Your task to perform on an android device: Go to Yahoo.com Image 0: 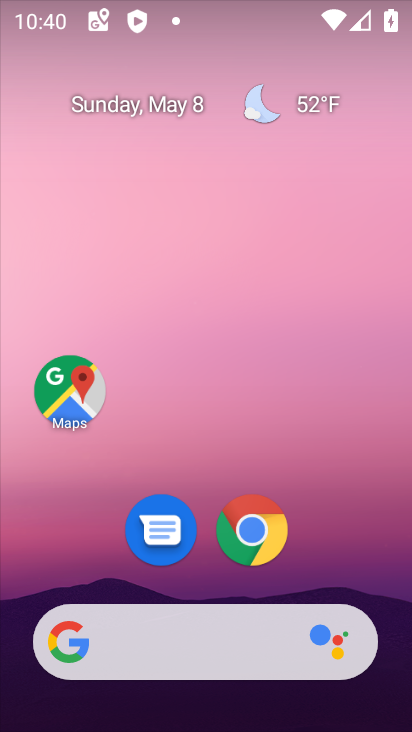
Step 0: drag from (366, 549) to (318, 45)
Your task to perform on an android device: Go to Yahoo.com Image 1: 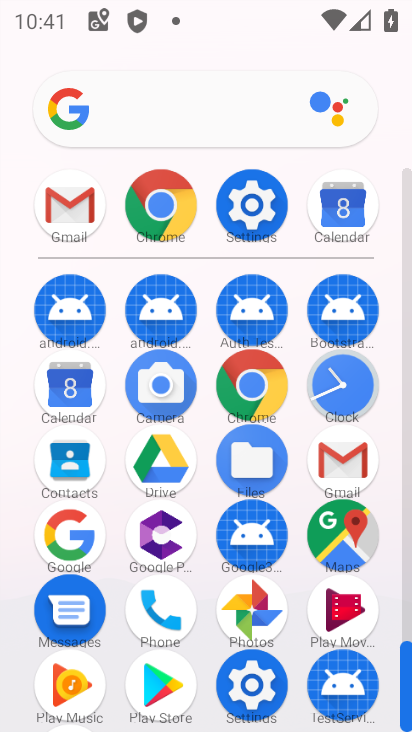
Step 1: click (267, 407)
Your task to perform on an android device: Go to Yahoo.com Image 2: 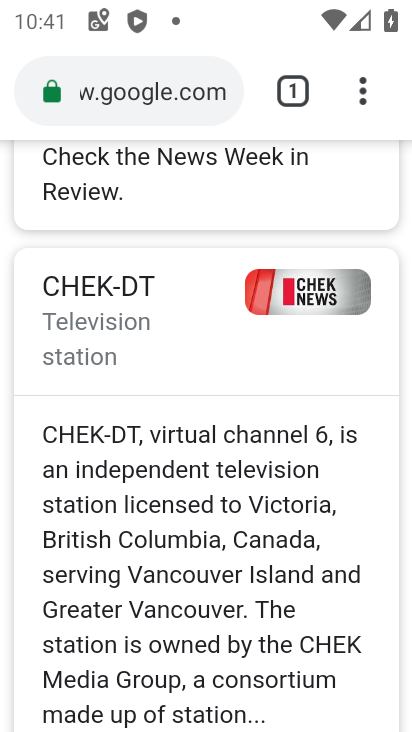
Step 2: click (199, 111)
Your task to perform on an android device: Go to Yahoo.com Image 3: 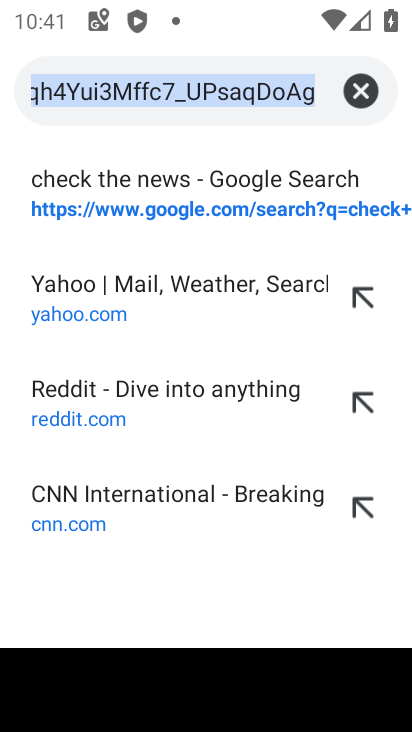
Step 3: click (365, 96)
Your task to perform on an android device: Go to Yahoo.com Image 4: 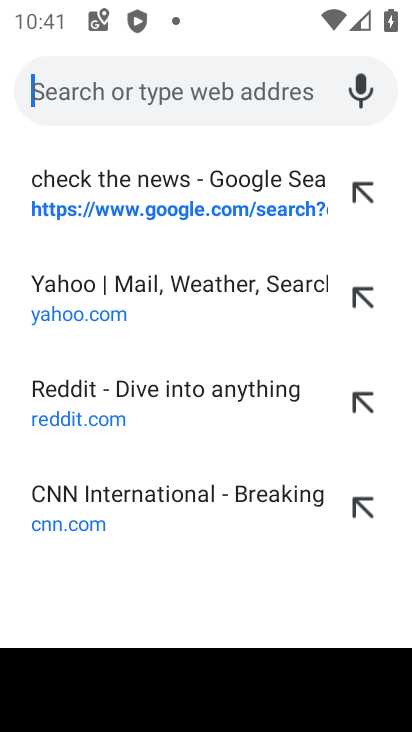
Step 4: type "yahoo.com"
Your task to perform on an android device: Go to Yahoo.com Image 5: 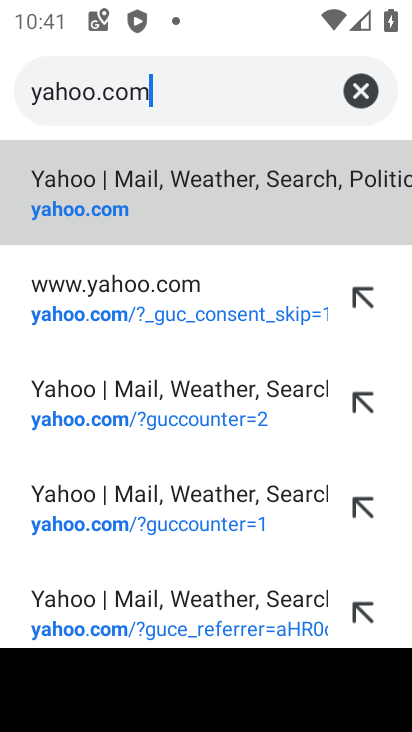
Step 5: click (85, 193)
Your task to perform on an android device: Go to Yahoo.com Image 6: 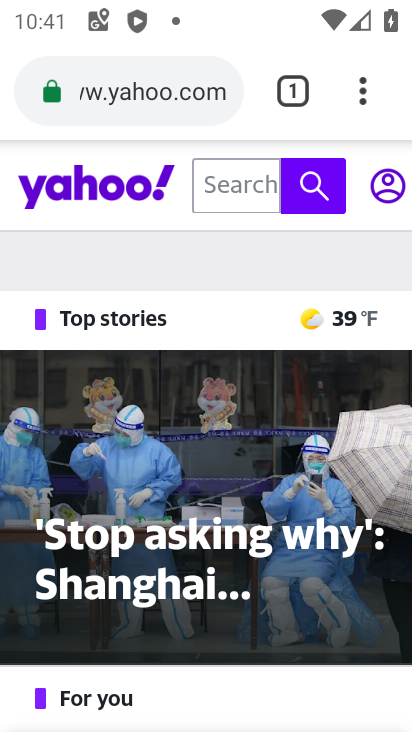
Step 6: task complete